Your task to perform on an android device: find which apps use the phone's location Image 0: 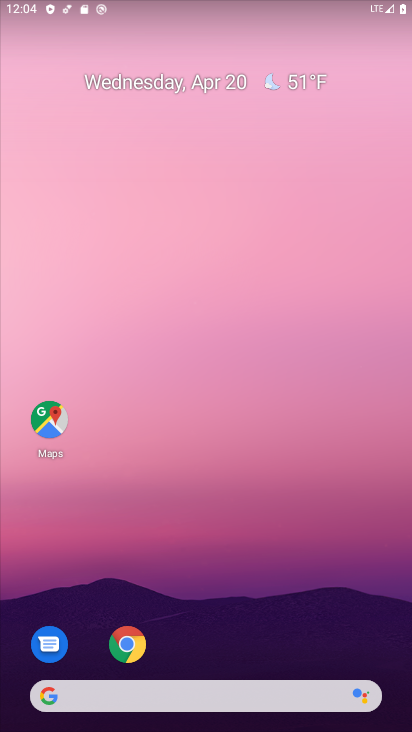
Step 0: drag from (205, 726) to (190, 164)
Your task to perform on an android device: find which apps use the phone's location Image 1: 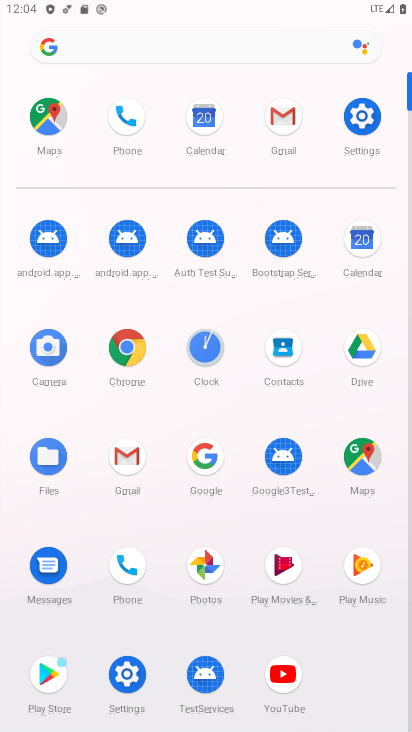
Step 1: click (371, 116)
Your task to perform on an android device: find which apps use the phone's location Image 2: 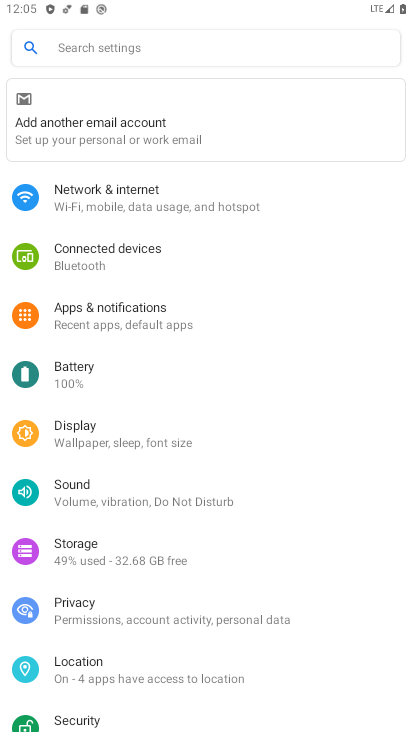
Step 2: click (104, 671)
Your task to perform on an android device: find which apps use the phone's location Image 3: 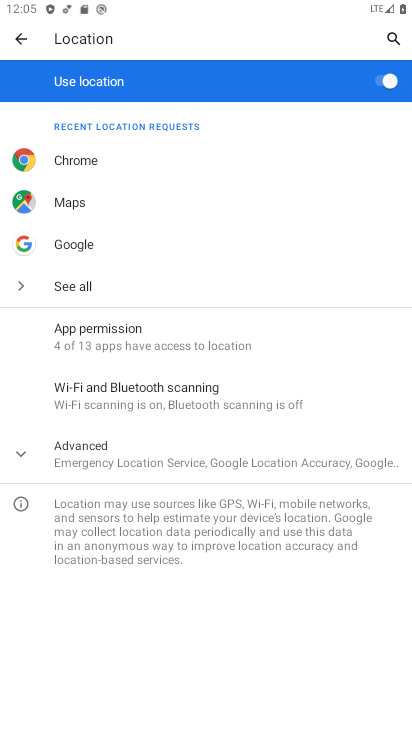
Step 3: click (108, 337)
Your task to perform on an android device: find which apps use the phone's location Image 4: 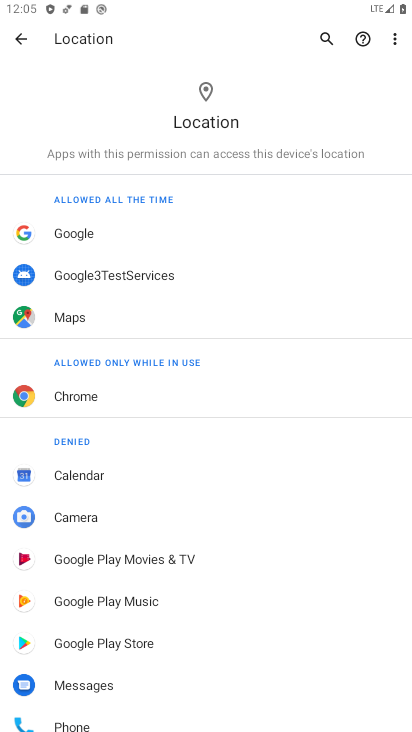
Step 4: task complete